Your task to perform on an android device: Search for vegetarian restaurants on Maps Image 0: 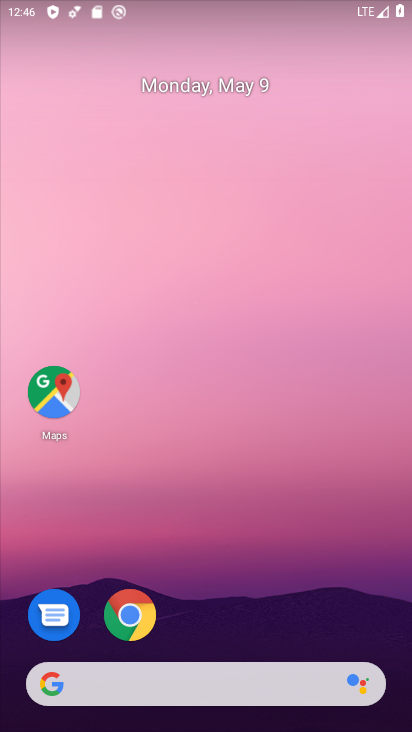
Step 0: click (53, 387)
Your task to perform on an android device: Search for vegetarian restaurants on Maps Image 1: 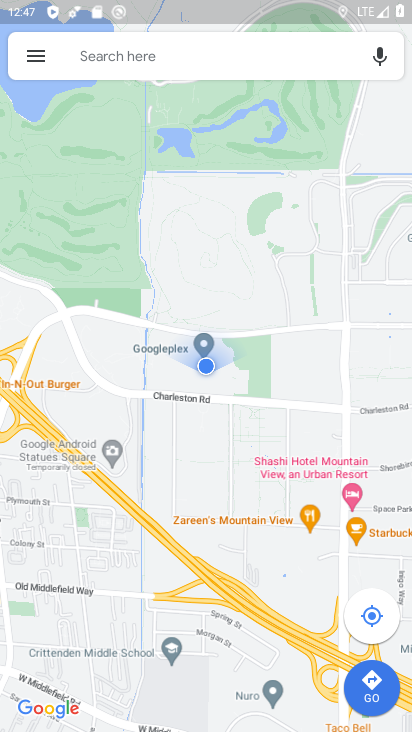
Step 1: click (123, 61)
Your task to perform on an android device: Search for vegetarian restaurants on Maps Image 2: 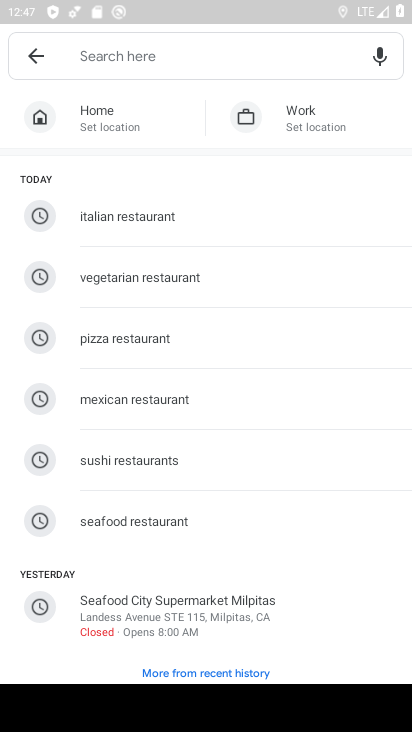
Step 2: type "vegetarian restaunrants"
Your task to perform on an android device: Search for vegetarian restaurants on Maps Image 3: 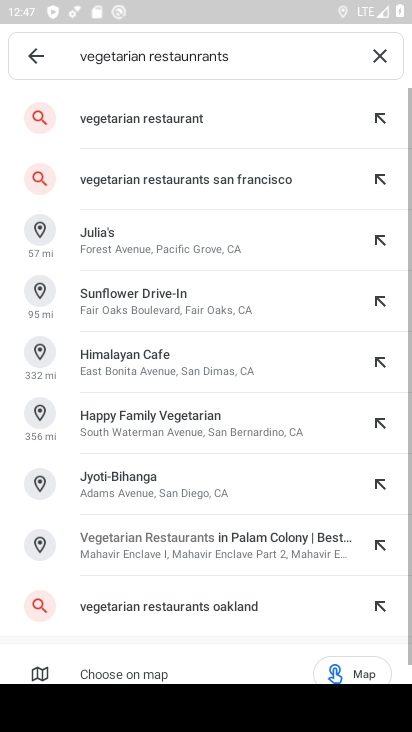
Step 3: click (113, 124)
Your task to perform on an android device: Search for vegetarian restaurants on Maps Image 4: 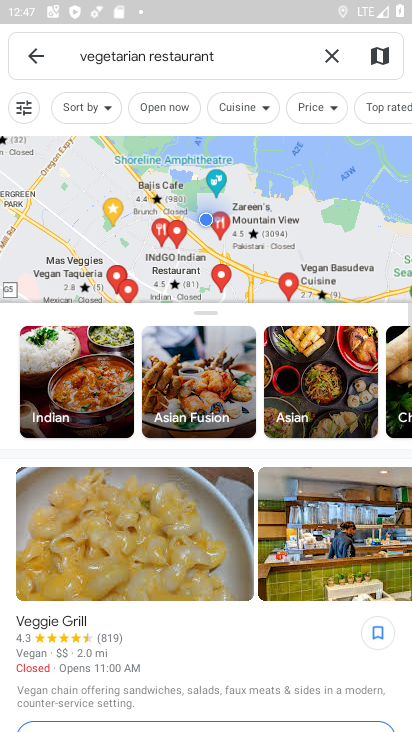
Step 4: task complete